Your task to perform on an android device: Toggle the flashlight Image 0: 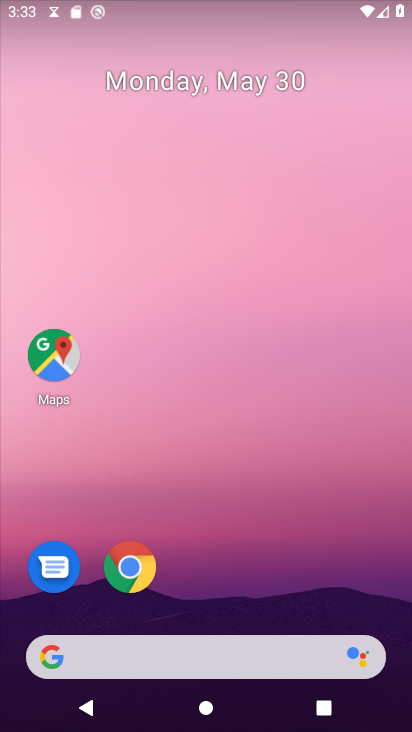
Step 0: drag from (253, 685) to (208, 84)
Your task to perform on an android device: Toggle the flashlight Image 1: 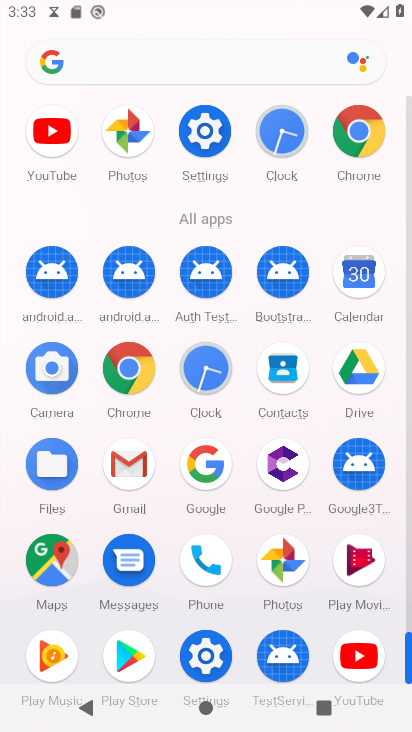
Step 1: task complete